Your task to perform on an android device: Open Google Maps and go to "Timeline" Image 0: 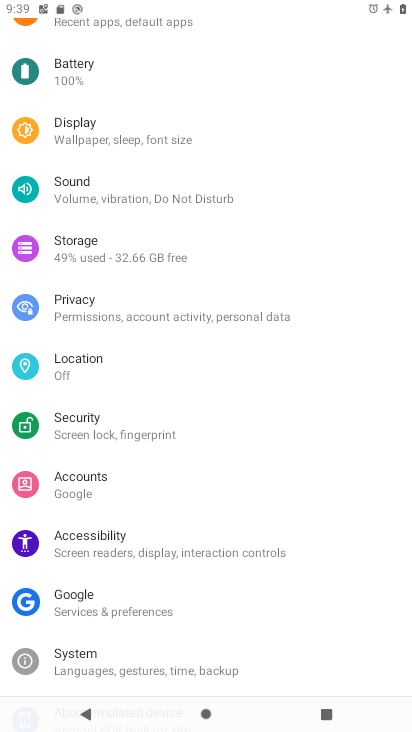
Step 0: press home button
Your task to perform on an android device: Open Google Maps and go to "Timeline" Image 1: 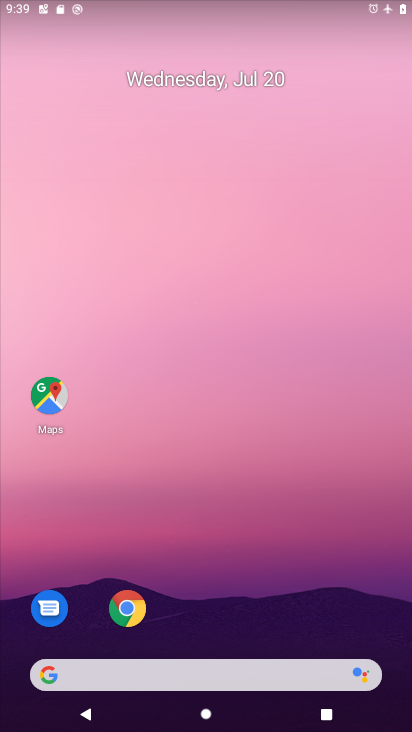
Step 1: click (42, 389)
Your task to perform on an android device: Open Google Maps and go to "Timeline" Image 2: 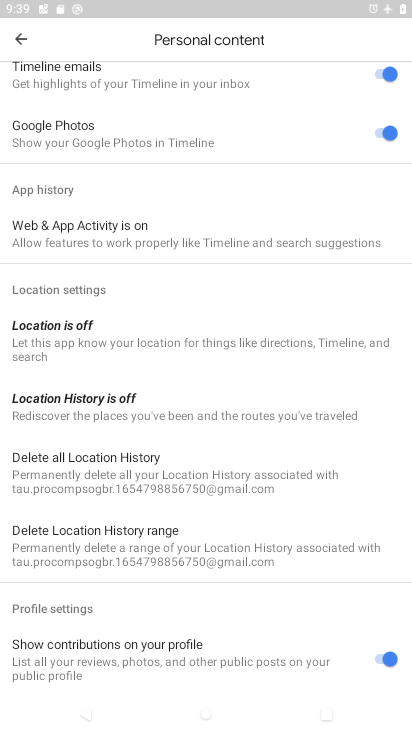
Step 2: click (13, 35)
Your task to perform on an android device: Open Google Maps and go to "Timeline" Image 3: 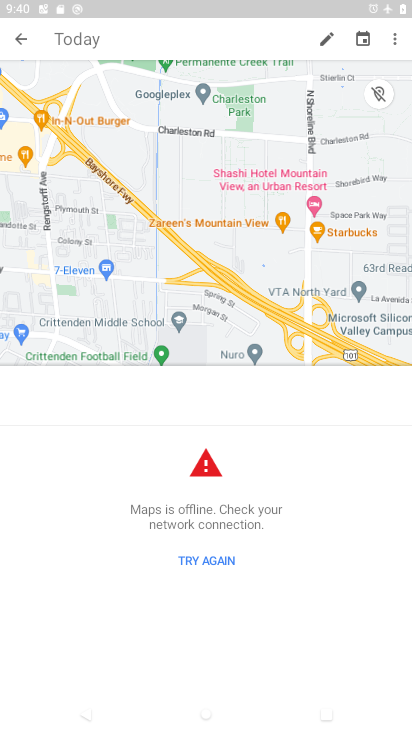
Step 3: task complete